Your task to perform on an android device: allow cookies in the chrome app Image 0: 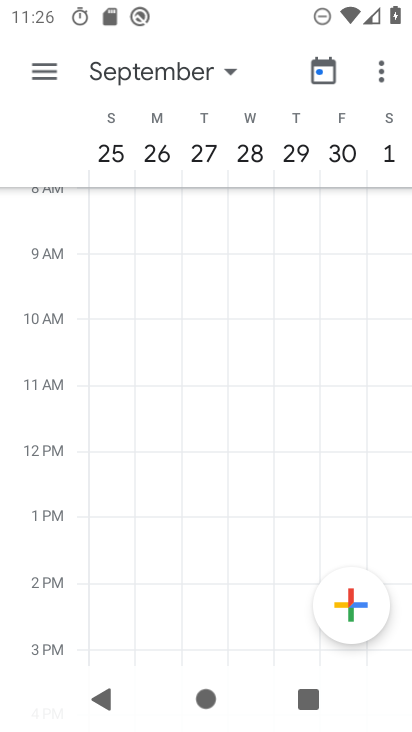
Step 0: press home button
Your task to perform on an android device: allow cookies in the chrome app Image 1: 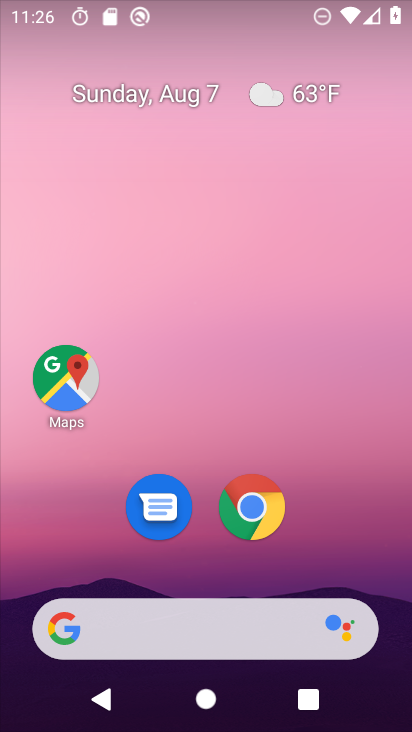
Step 1: drag from (314, 188) to (323, 38)
Your task to perform on an android device: allow cookies in the chrome app Image 2: 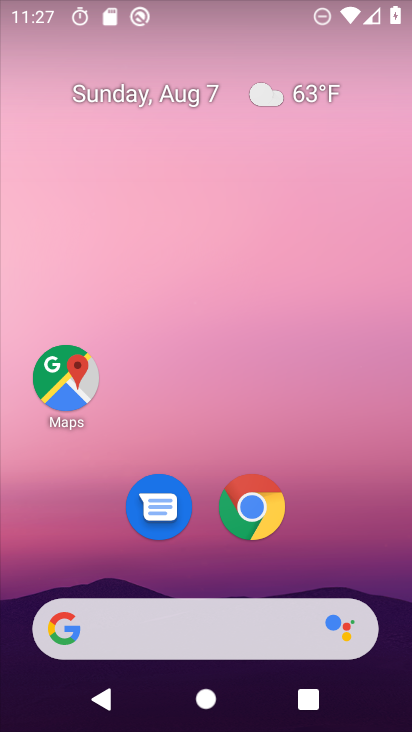
Step 2: drag from (330, 422) to (301, 135)
Your task to perform on an android device: allow cookies in the chrome app Image 3: 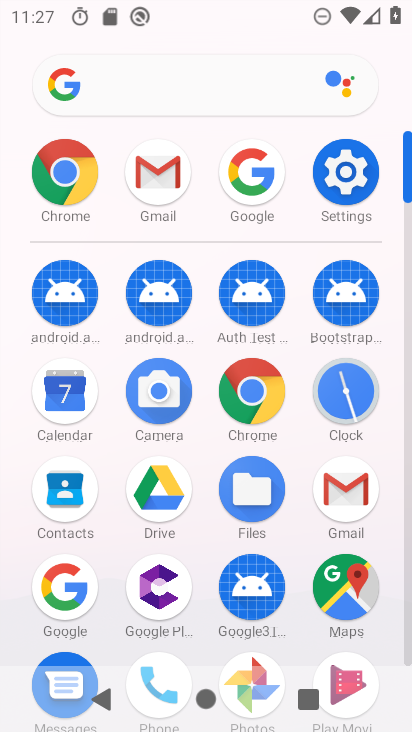
Step 3: click (252, 396)
Your task to perform on an android device: allow cookies in the chrome app Image 4: 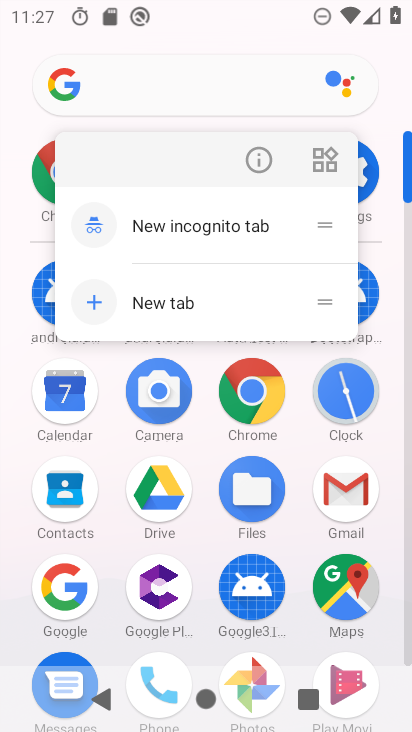
Step 4: click (248, 397)
Your task to perform on an android device: allow cookies in the chrome app Image 5: 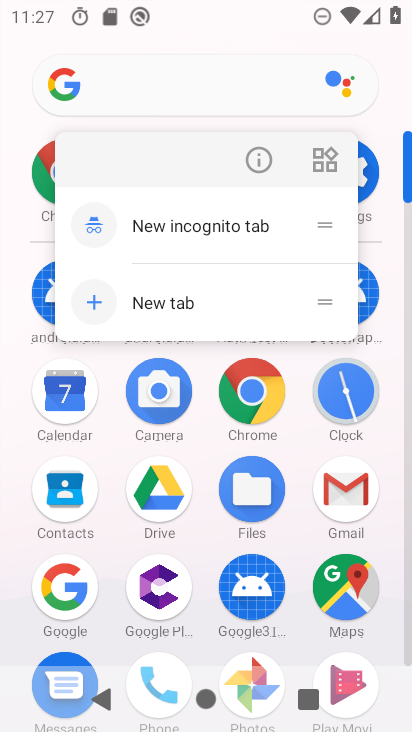
Step 5: click (252, 384)
Your task to perform on an android device: allow cookies in the chrome app Image 6: 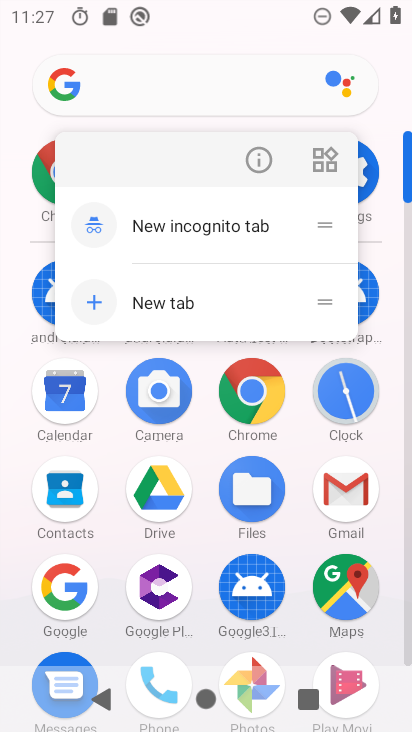
Step 6: click (251, 393)
Your task to perform on an android device: allow cookies in the chrome app Image 7: 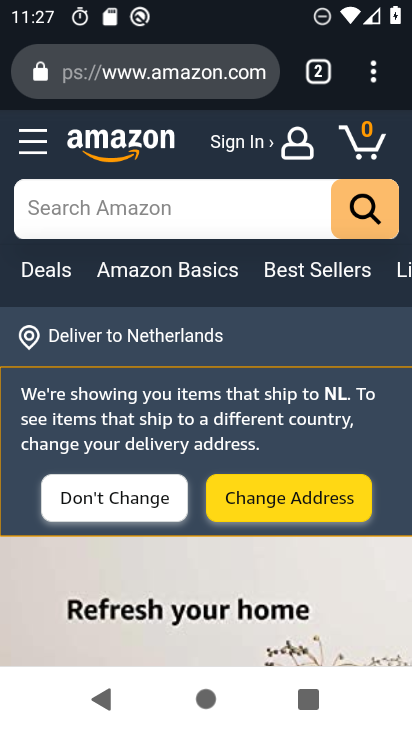
Step 7: drag from (381, 58) to (139, 392)
Your task to perform on an android device: allow cookies in the chrome app Image 8: 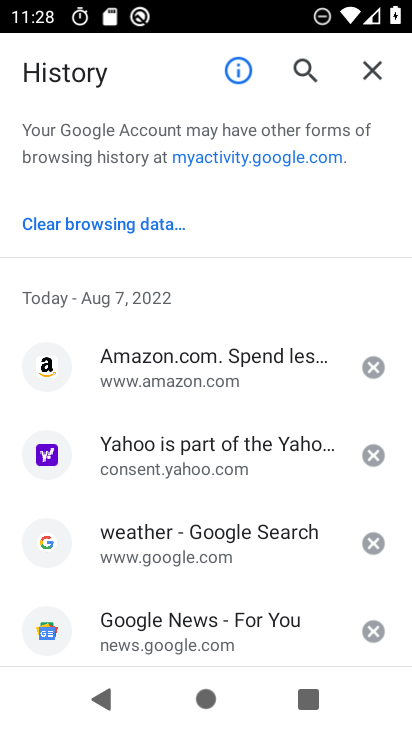
Step 8: click (110, 225)
Your task to perform on an android device: allow cookies in the chrome app Image 9: 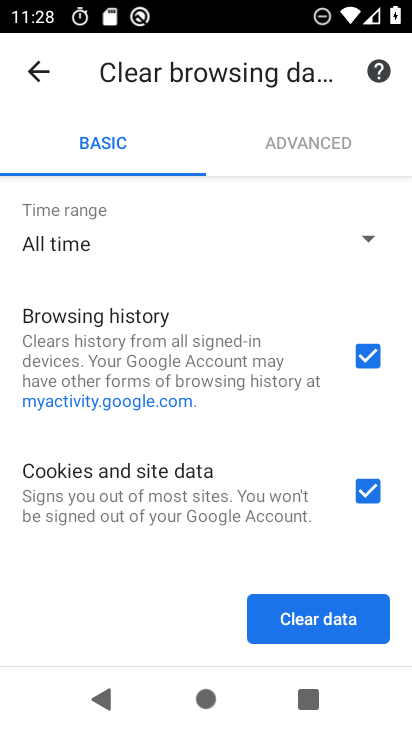
Step 9: click (322, 629)
Your task to perform on an android device: allow cookies in the chrome app Image 10: 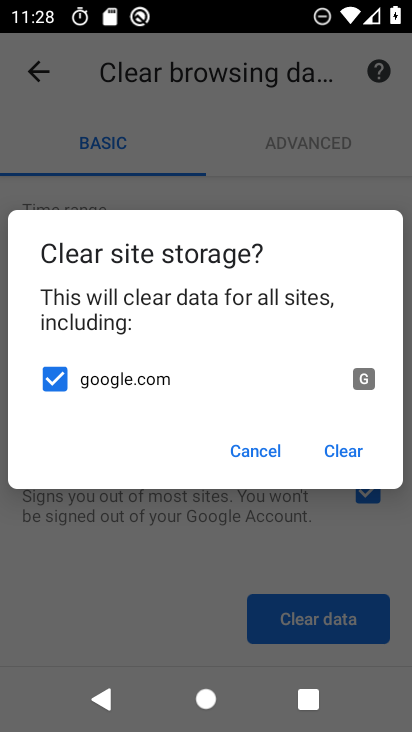
Step 10: click (349, 457)
Your task to perform on an android device: allow cookies in the chrome app Image 11: 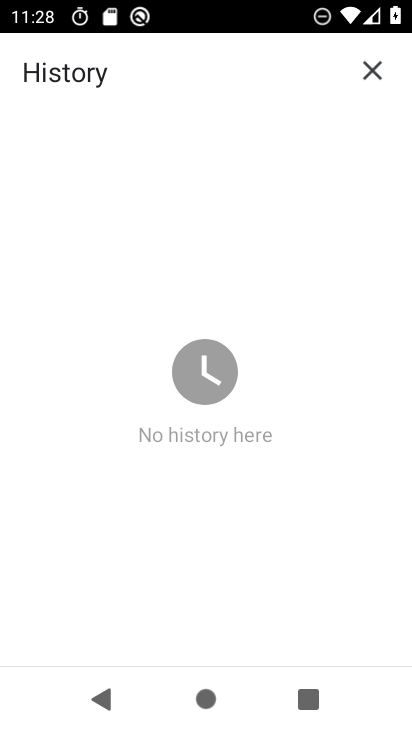
Step 11: task complete